Your task to perform on an android device: Go to calendar. Show me events next week Image 0: 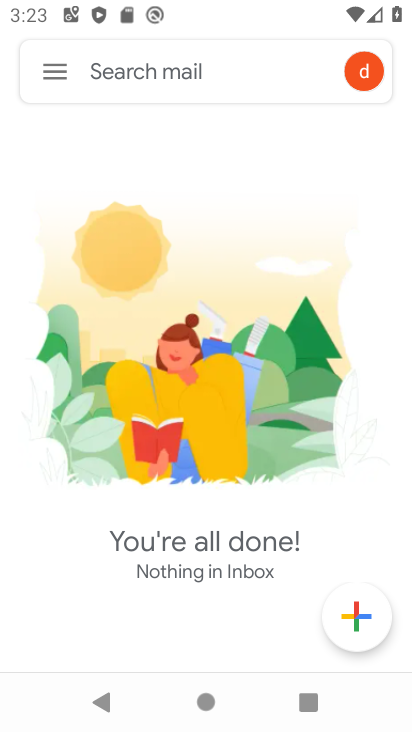
Step 0: press home button
Your task to perform on an android device: Go to calendar. Show me events next week Image 1: 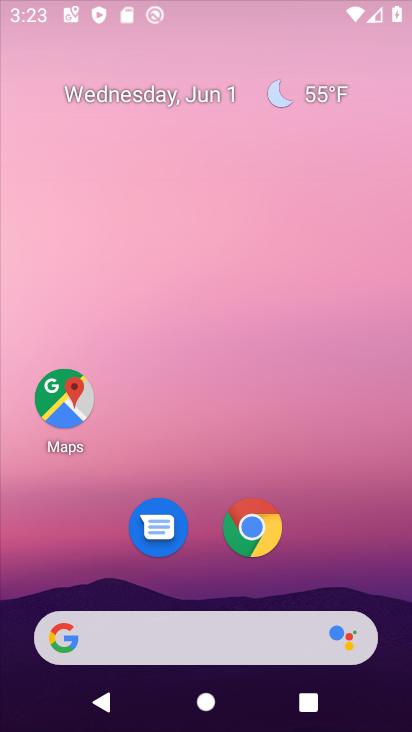
Step 1: drag from (329, 574) to (334, 170)
Your task to perform on an android device: Go to calendar. Show me events next week Image 2: 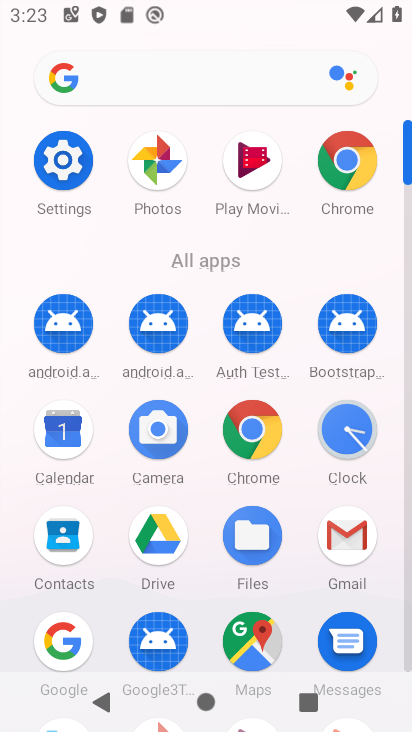
Step 2: click (74, 461)
Your task to perform on an android device: Go to calendar. Show me events next week Image 3: 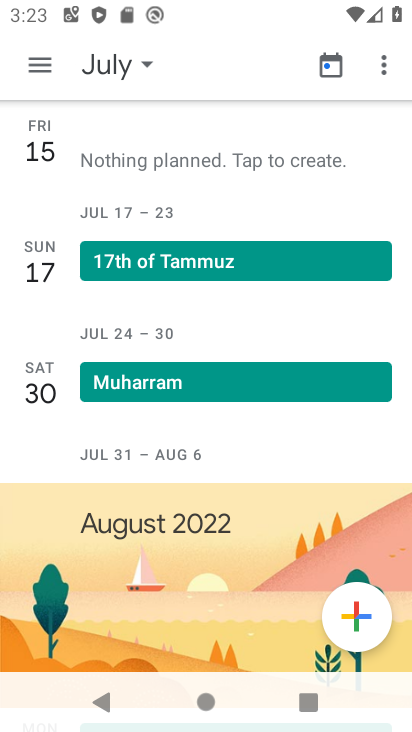
Step 3: click (147, 61)
Your task to perform on an android device: Go to calendar. Show me events next week Image 4: 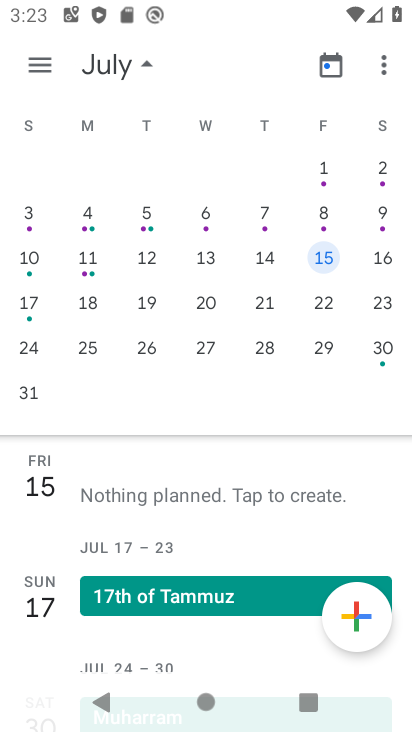
Step 4: drag from (47, 186) to (388, 246)
Your task to perform on an android device: Go to calendar. Show me events next week Image 5: 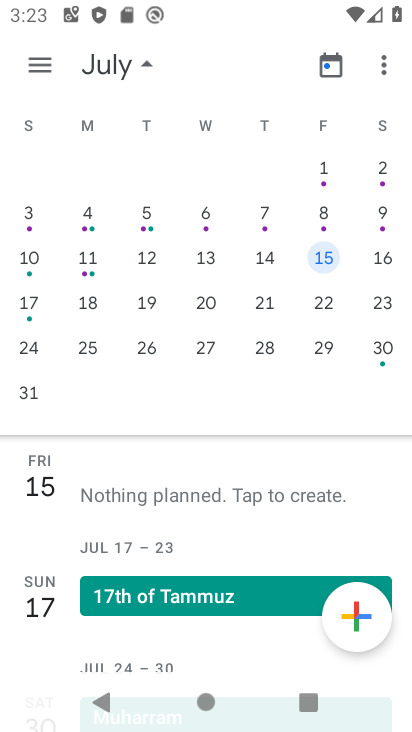
Step 5: drag from (72, 285) to (371, 314)
Your task to perform on an android device: Go to calendar. Show me events next week Image 6: 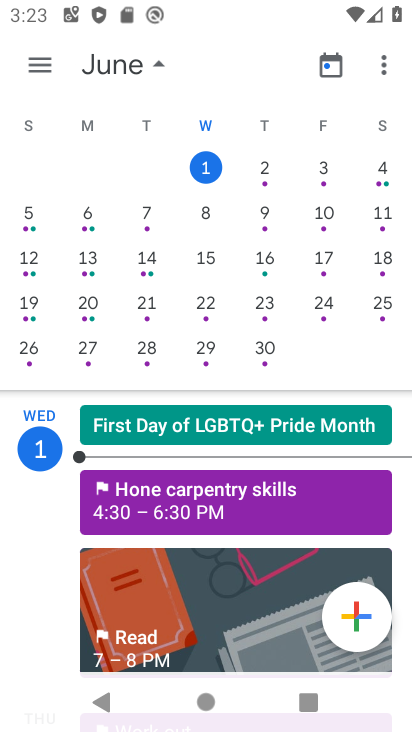
Step 6: click (307, 224)
Your task to perform on an android device: Go to calendar. Show me events next week Image 7: 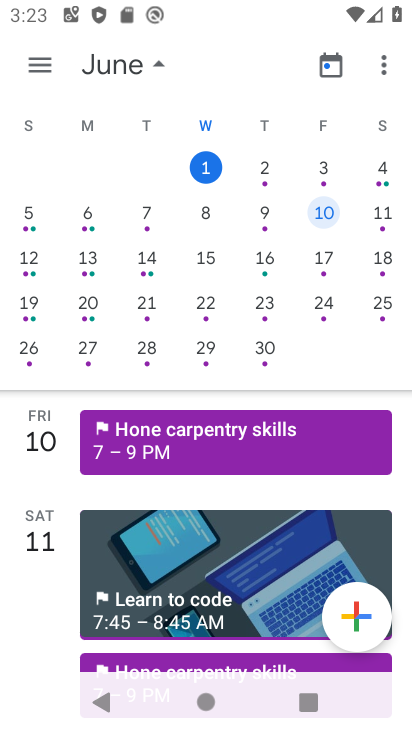
Step 7: click (165, 60)
Your task to perform on an android device: Go to calendar. Show me events next week Image 8: 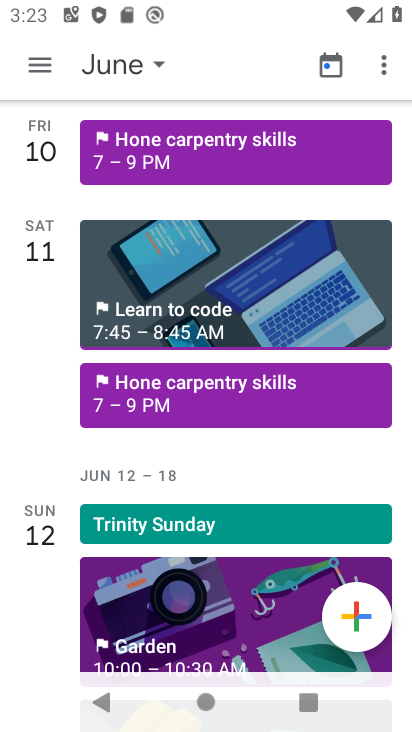
Step 8: task complete